Your task to perform on an android device: Check the weather Image 0: 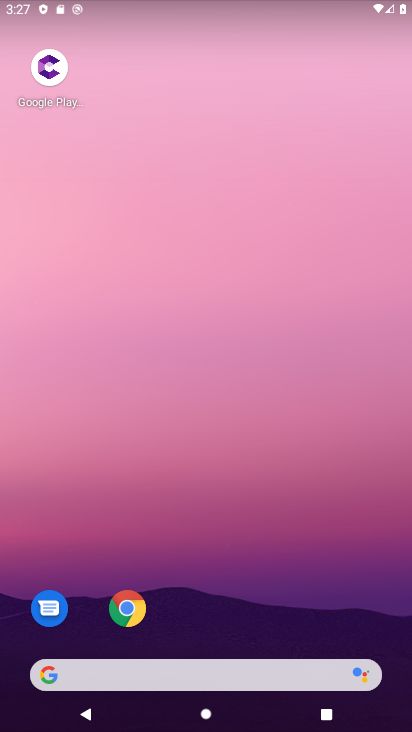
Step 0: click (205, 662)
Your task to perform on an android device: Check the weather Image 1: 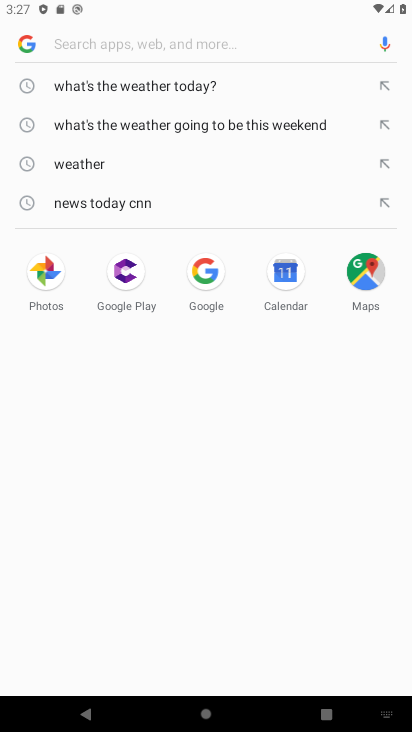
Step 1: click (123, 168)
Your task to perform on an android device: Check the weather Image 2: 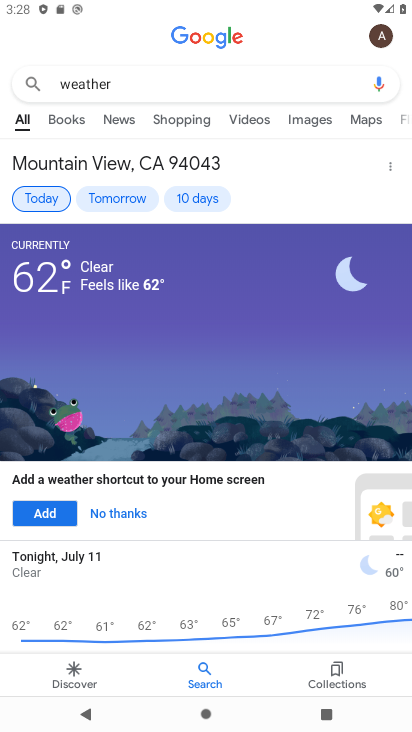
Step 2: task complete